Your task to perform on an android device: Open location settings Image 0: 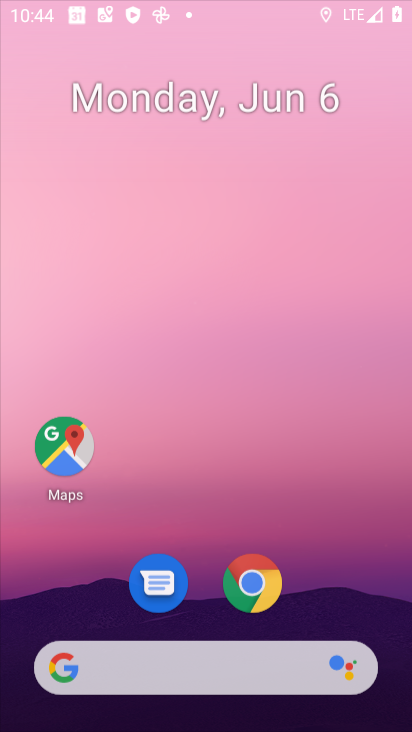
Step 0: drag from (209, 24) to (298, 3)
Your task to perform on an android device: Open location settings Image 1: 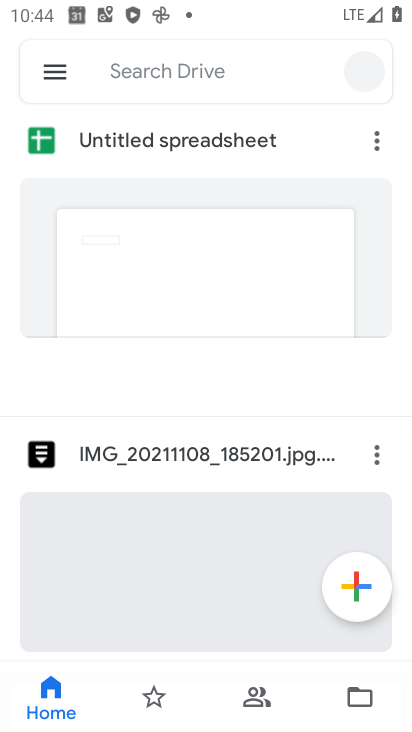
Step 1: press home button
Your task to perform on an android device: Open location settings Image 2: 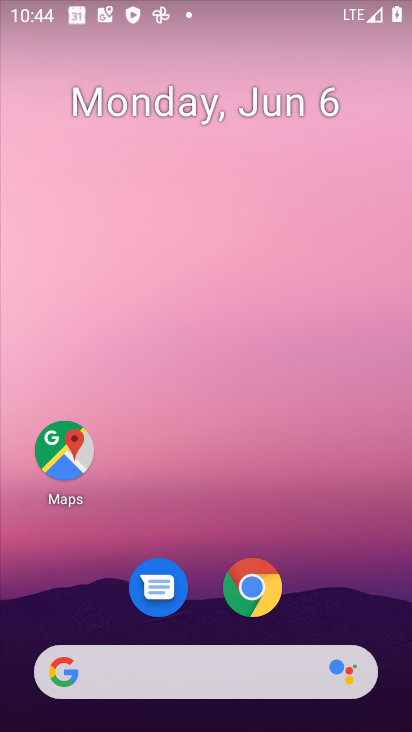
Step 2: drag from (203, 716) to (308, 42)
Your task to perform on an android device: Open location settings Image 3: 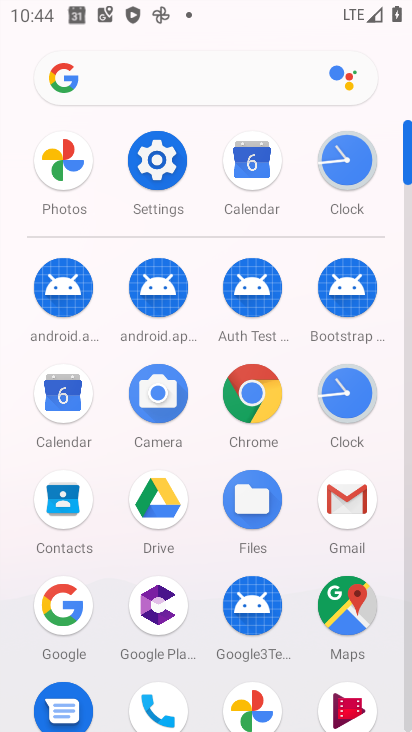
Step 3: click (159, 177)
Your task to perform on an android device: Open location settings Image 4: 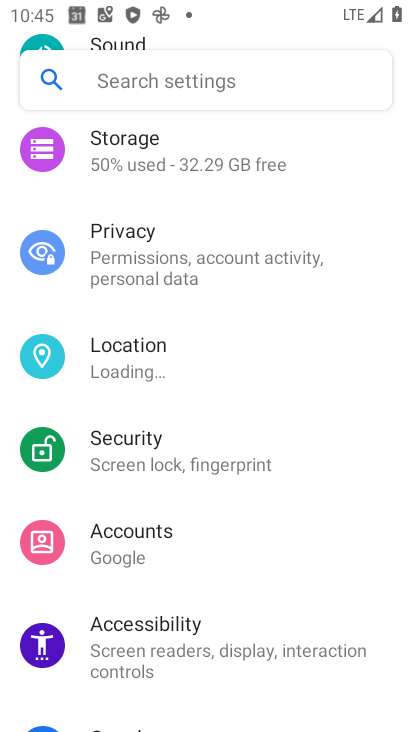
Step 4: click (141, 354)
Your task to perform on an android device: Open location settings Image 5: 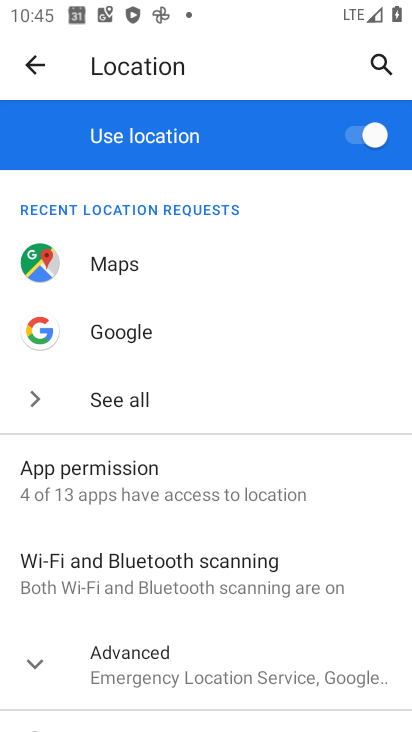
Step 5: task complete